Your task to perform on an android device: Open calendar and show me the fourth week of next month Image 0: 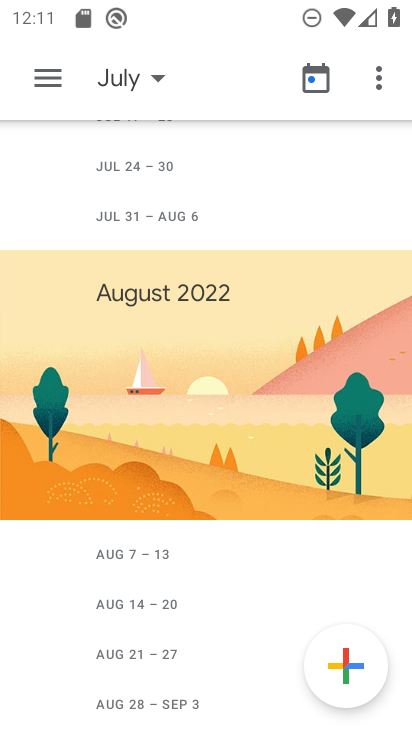
Step 0: press home button
Your task to perform on an android device: Open calendar and show me the fourth week of next month Image 1: 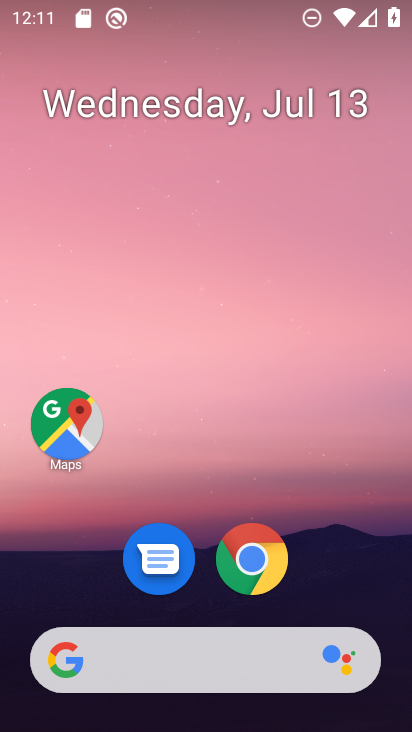
Step 1: drag from (189, 634) to (192, 220)
Your task to perform on an android device: Open calendar and show me the fourth week of next month Image 2: 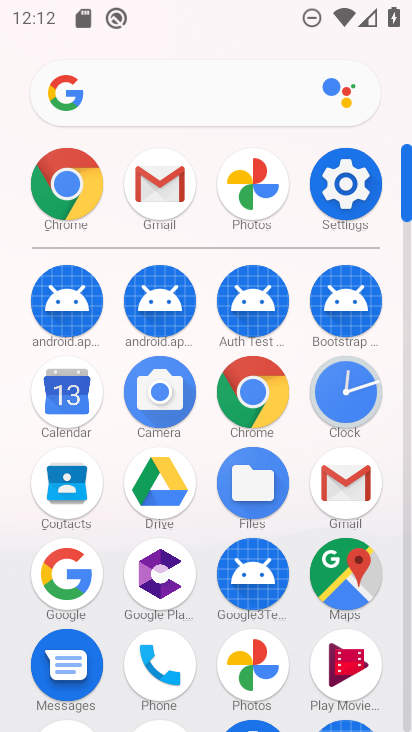
Step 2: click (78, 420)
Your task to perform on an android device: Open calendar and show me the fourth week of next month Image 3: 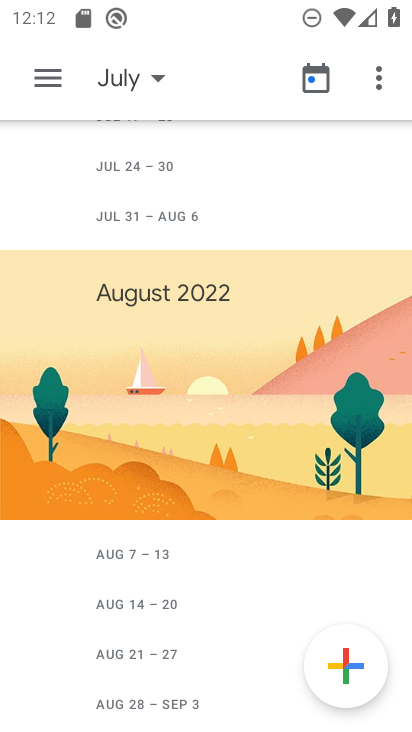
Step 3: click (142, 60)
Your task to perform on an android device: Open calendar and show me the fourth week of next month Image 4: 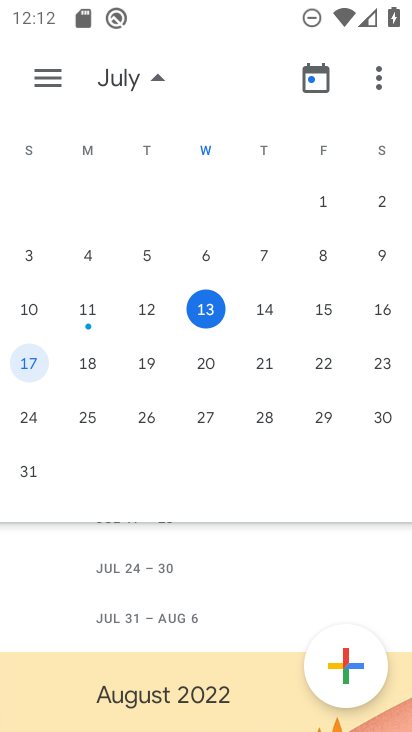
Step 4: drag from (342, 365) to (9, 396)
Your task to perform on an android device: Open calendar and show me the fourth week of next month Image 5: 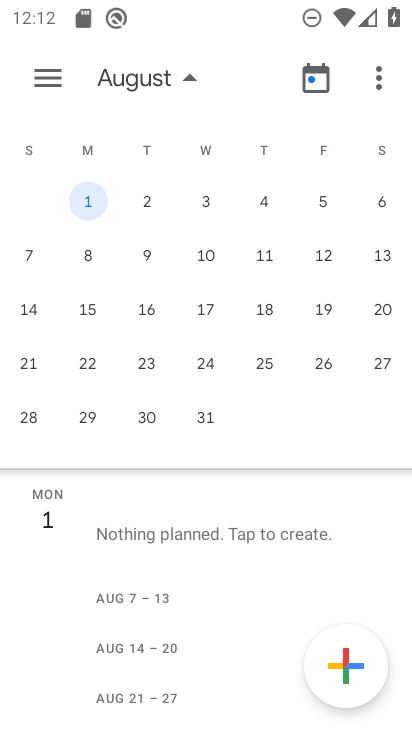
Step 5: click (27, 378)
Your task to perform on an android device: Open calendar and show me the fourth week of next month Image 6: 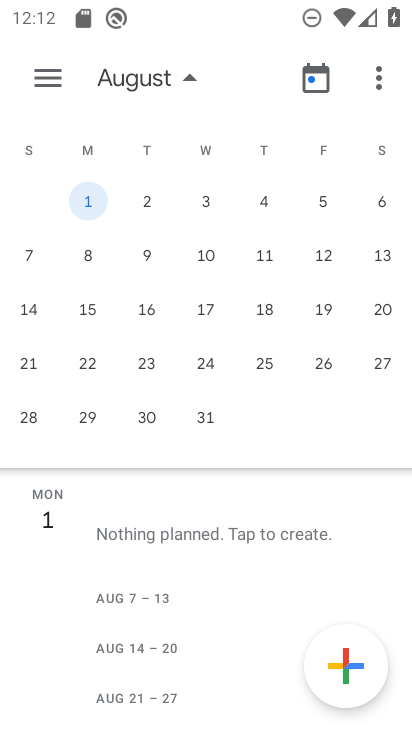
Step 6: click (27, 378)
Your task to perform on an android device: Open calendar and show me the fourth week of next month Image 7: 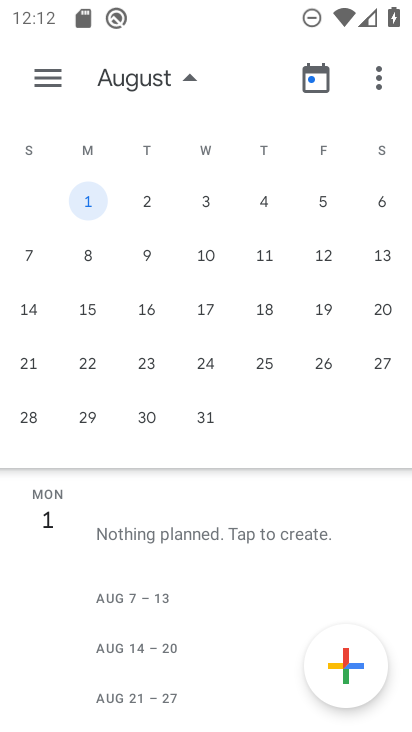
Step 7: click (24, 360)
Your task to perform on an android device: Open calendar and show me the fourth week of next month Image 8: 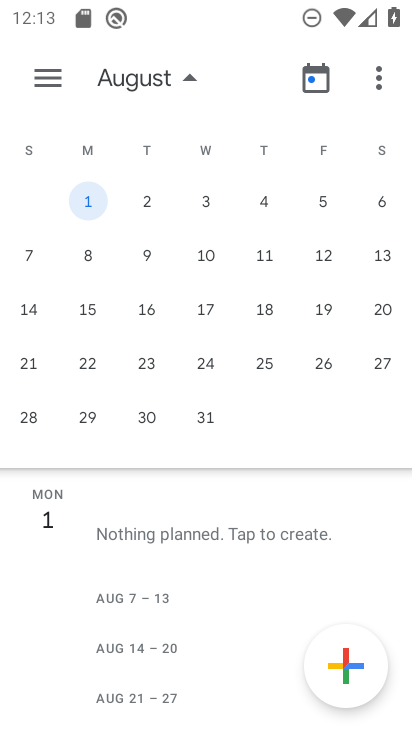
Step 8: click (40, 373)
Your task to perform on an android device: Open calendar and show me the fourth week of next month Image 9: 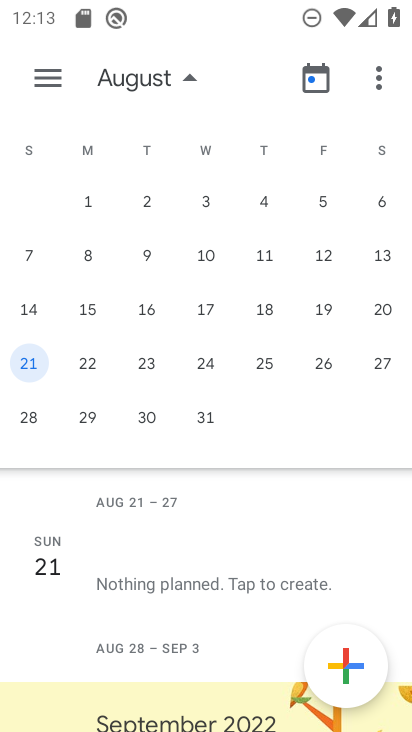
Step 9: task complete